Your task to perform on an android device: turn on data saver in the chrome app Image 0: 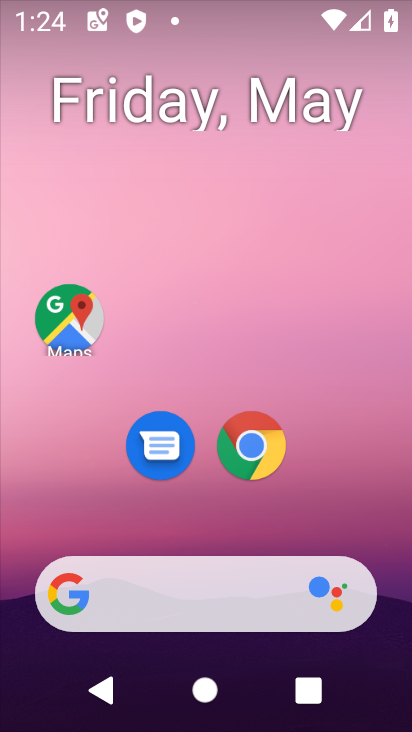
Step 0: click (246, 441)
Your task to perform on an android device: turn on data saver in the chrome app Image 1: 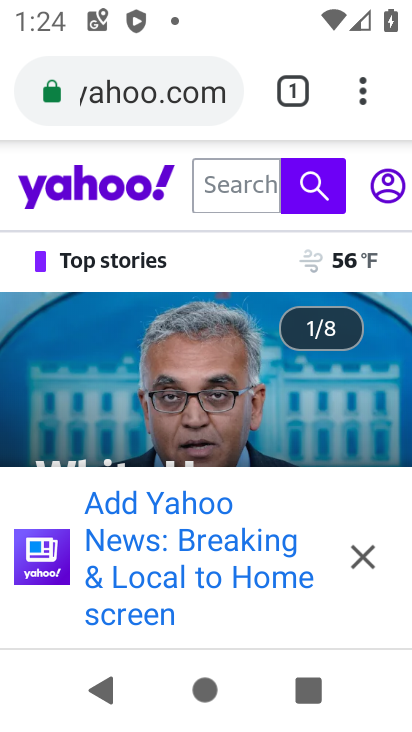
Step 1: click (361, 95)
Your task to perform on an android device: turn on data saver in the chrome app Image 2: 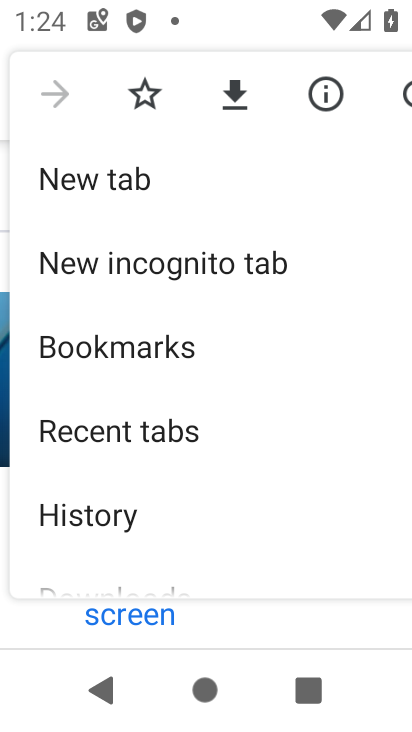
Step 2: drag from (186, 423) to (299, 103)
Your task to perform on an android device: turn on data saver in the chrome app Image 3: 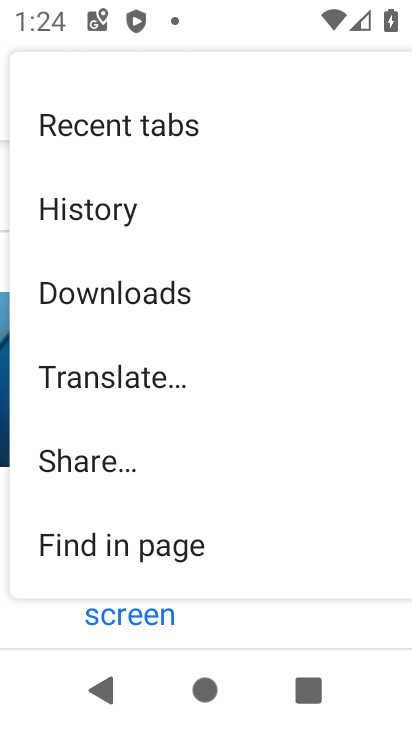
Step 3: drag from (207, 508) to (246, 115)
Your task to perform on an android device: turn on data saver in the chrome app Image 4: 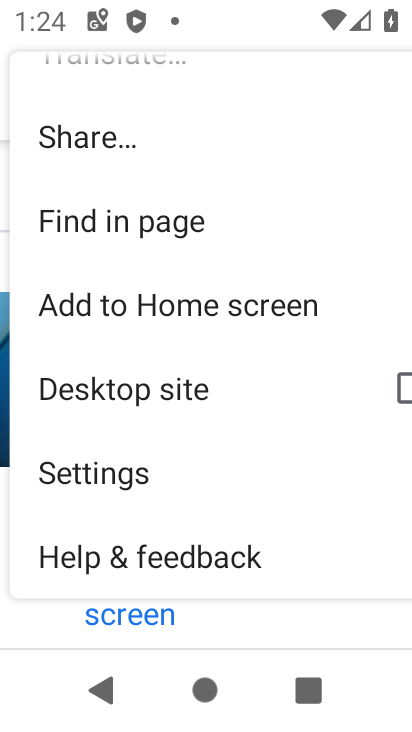
Step 4: click (99, 467)
Your task to perform on an android device: turn on data saver in the chrome app Image 5: 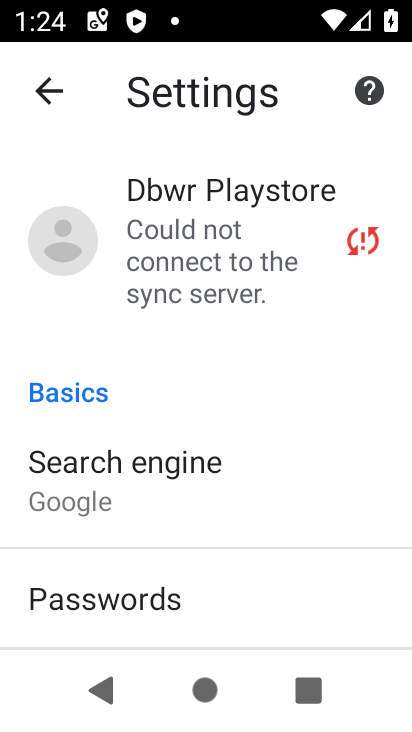
Step 5: drag from (273, 587) to (343, 192)
Your task to perform on an android device: turn on data saver in the chrome app Image 6: 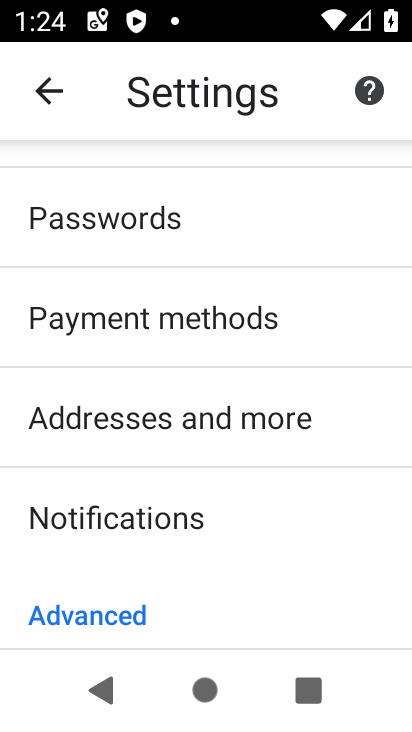
Step 6: drag from (236, 582) to (289, 202)
Your task to perform on an android device: turn on data saver in the chrome app Image 7: 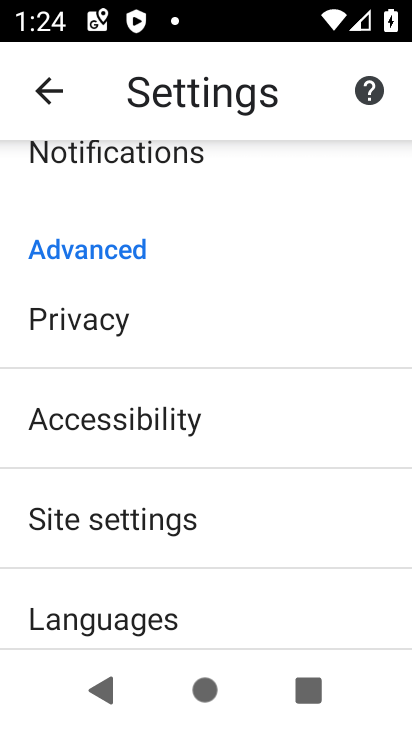
Step 7: drag from (207, 609) to (237, 311)
Your task to perform on an android device: turn on data saver in the chrome app Image 8: 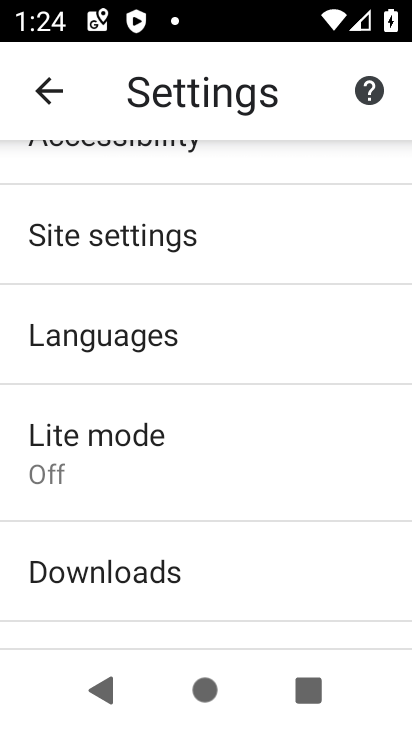
Step 8: click (61, 446)
Your task to perform on an android device: turn on data saver in the chrome app Image 9: 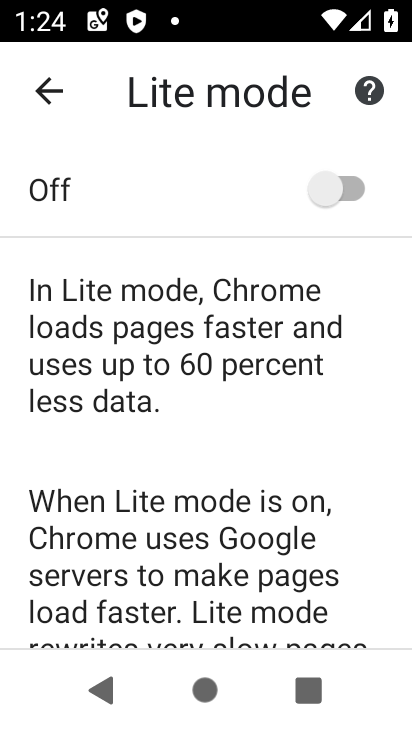
Step 9: click (360, 190)
Your task to perform on an android device: turn on data saver in the chrome app Image 10: 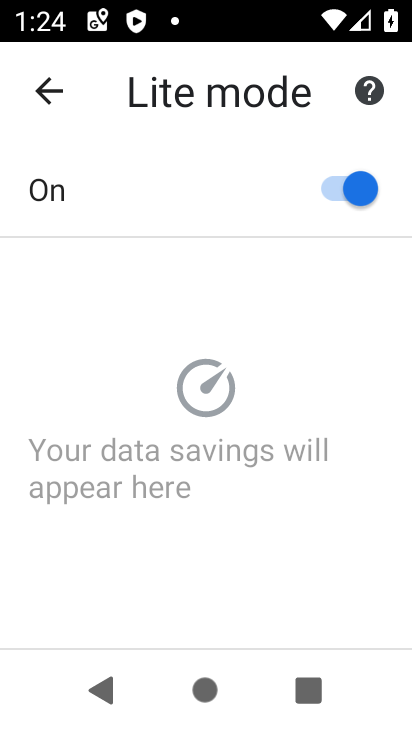
Step 10: task complete